Your task to perform on an android device: change text size in settings app Image 0: 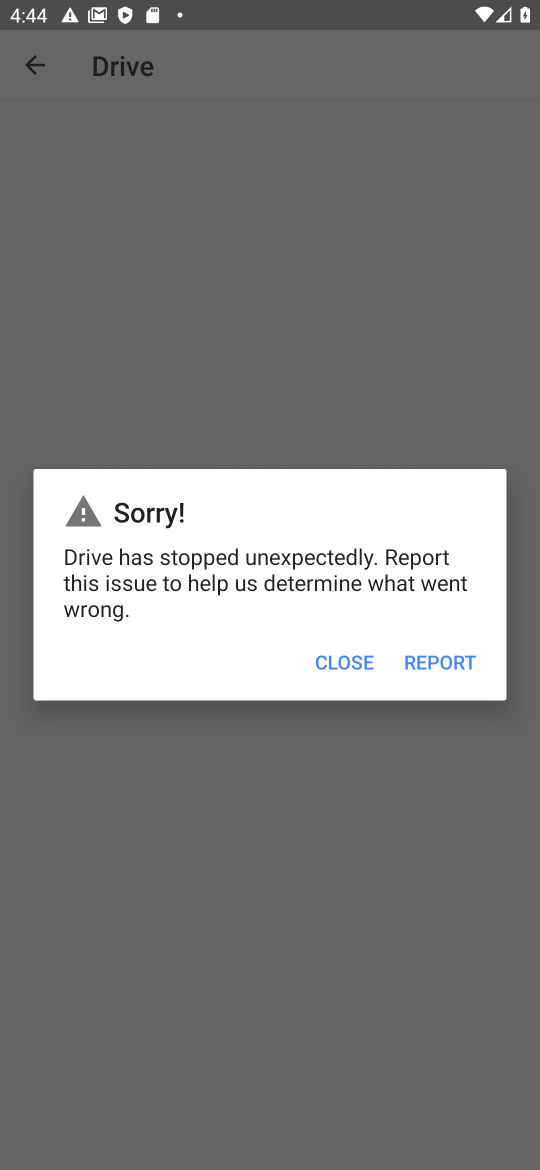
Step 0: press home button
Your task to perform on an android device: change text size in settings app Image 1: 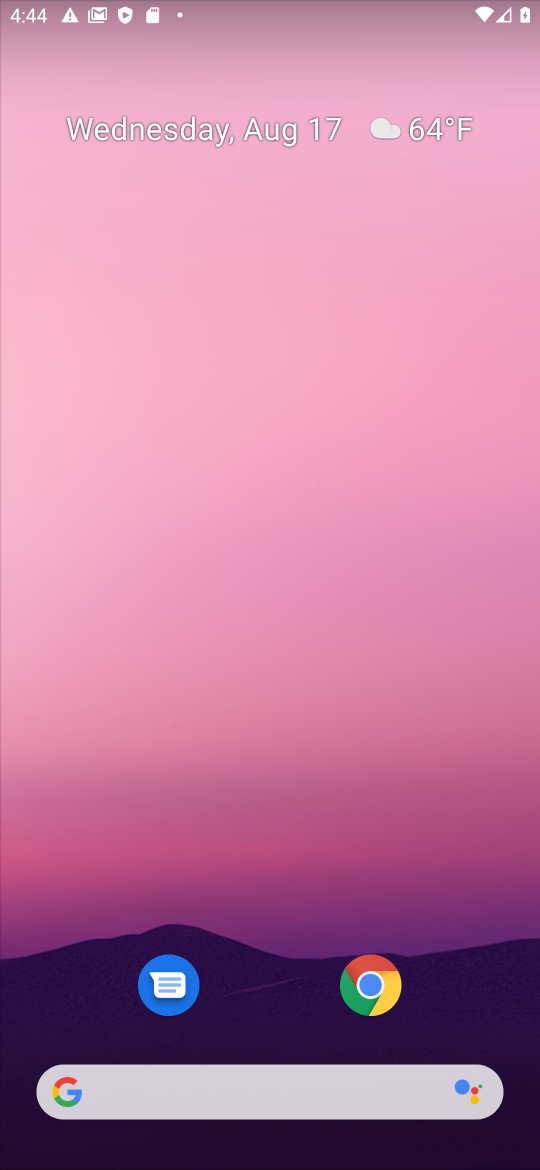
Step 1: drag from (249, 1086) to (223, 161)
Your task to perform on an android device: change text size in settings app Image 2: 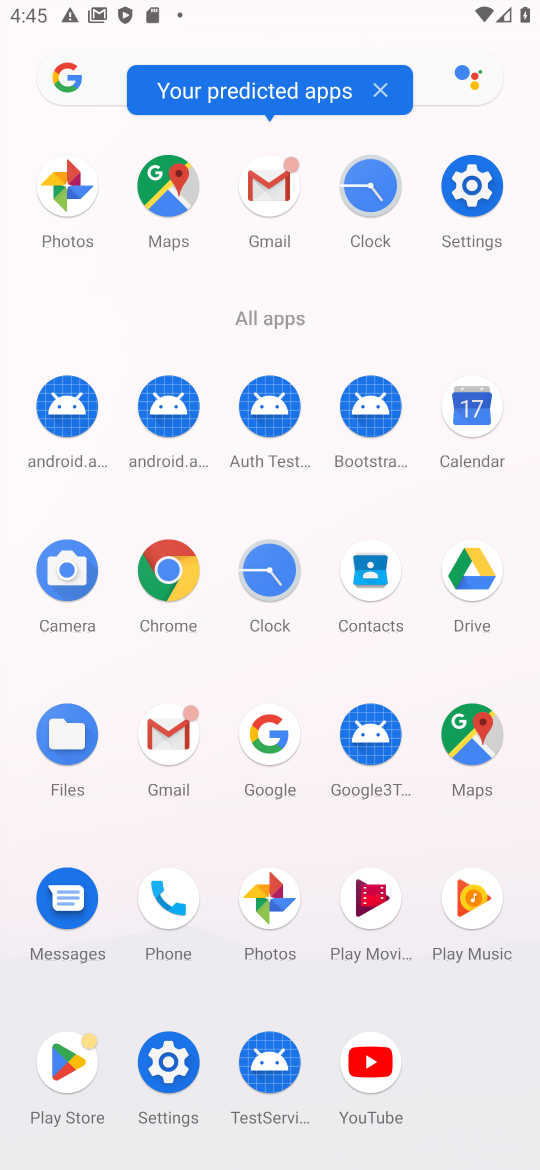
Step 2: click (171, 1061)
Your task to perform on an android device: change text size in settings app Image 3: 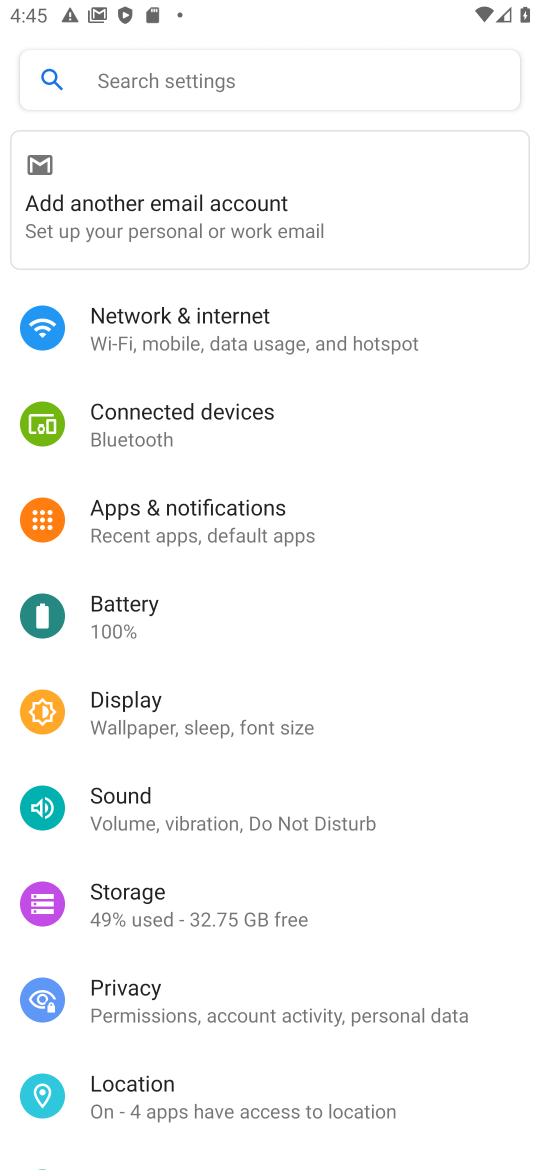
Step 3: drag from (189, 968) to (330, 750)
Your task to perform on an android device: change text size in settings app Image 4: 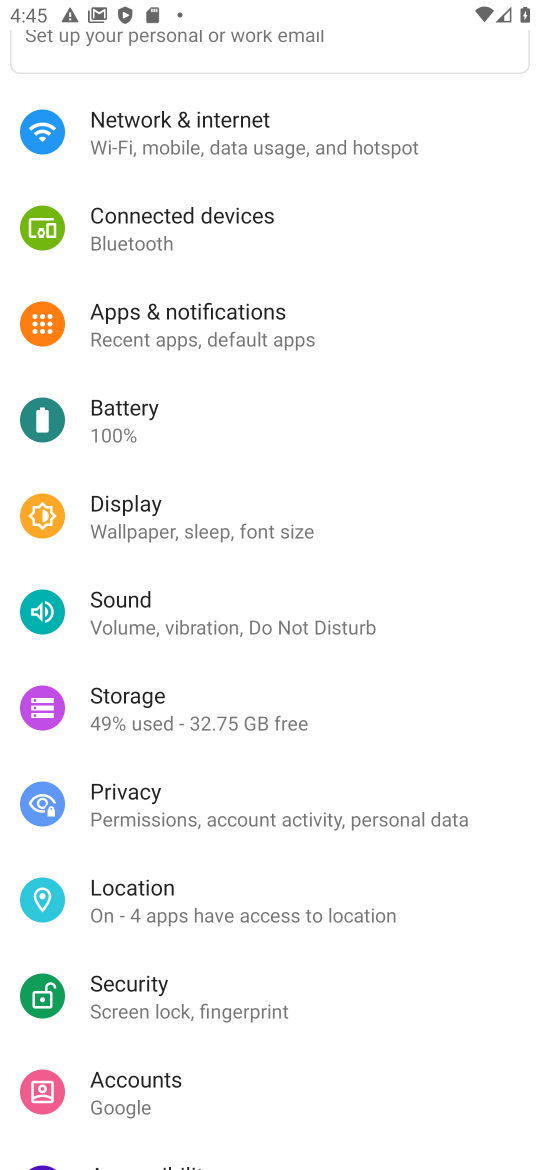
Step 4: drag from (197, 1037) to (333, 801)
Your task to perform on an android device: change text size in settings app Image 5: 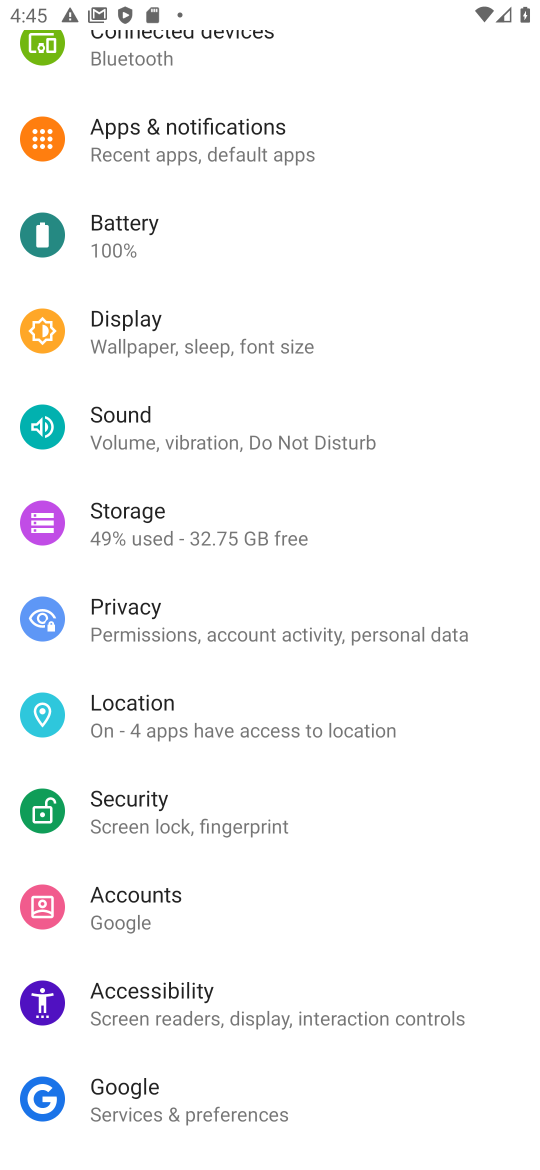
Step 5: click (230, 1011)
Your task to perform on an android device: change text size in settings app Image 6: 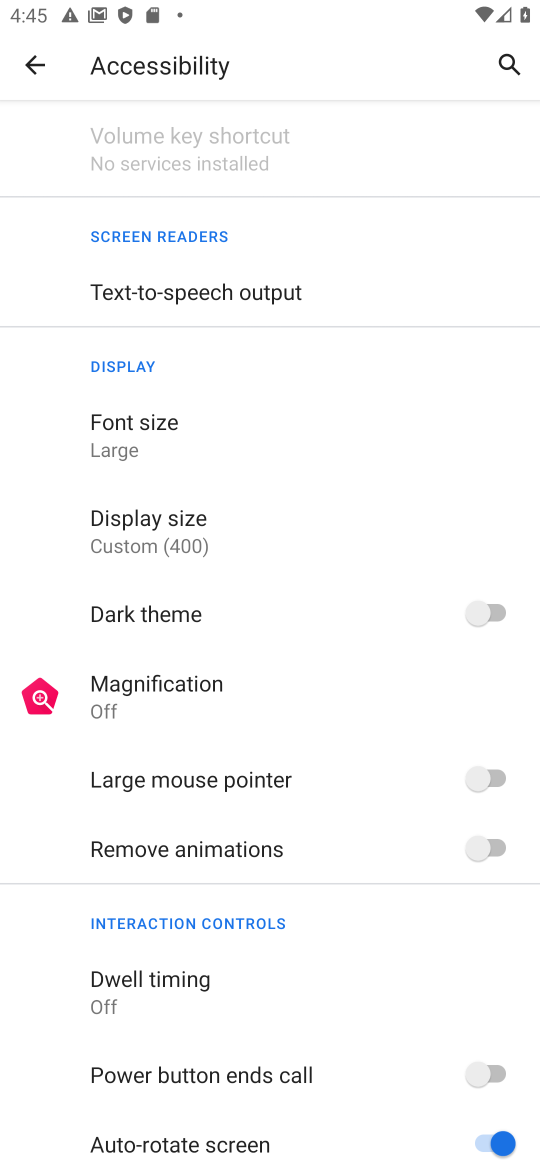
Step 6: click (180, 439)
Your task to perform on an android device: change text size in settings app Image 7: 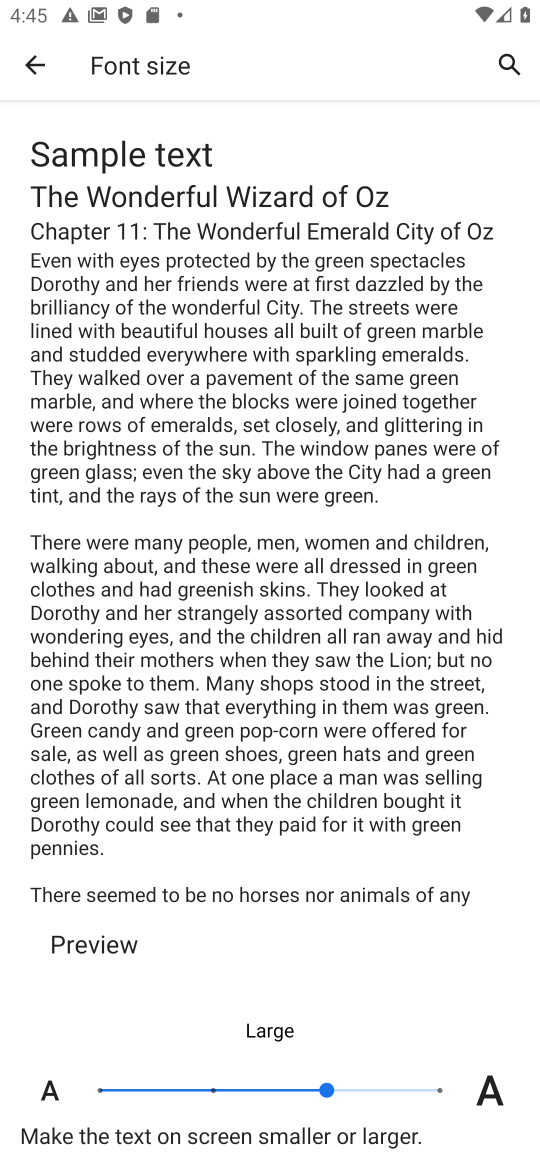
Step 7: click (209, 1092)
Your task to perform on an android device: change text size in settings app Image 8: 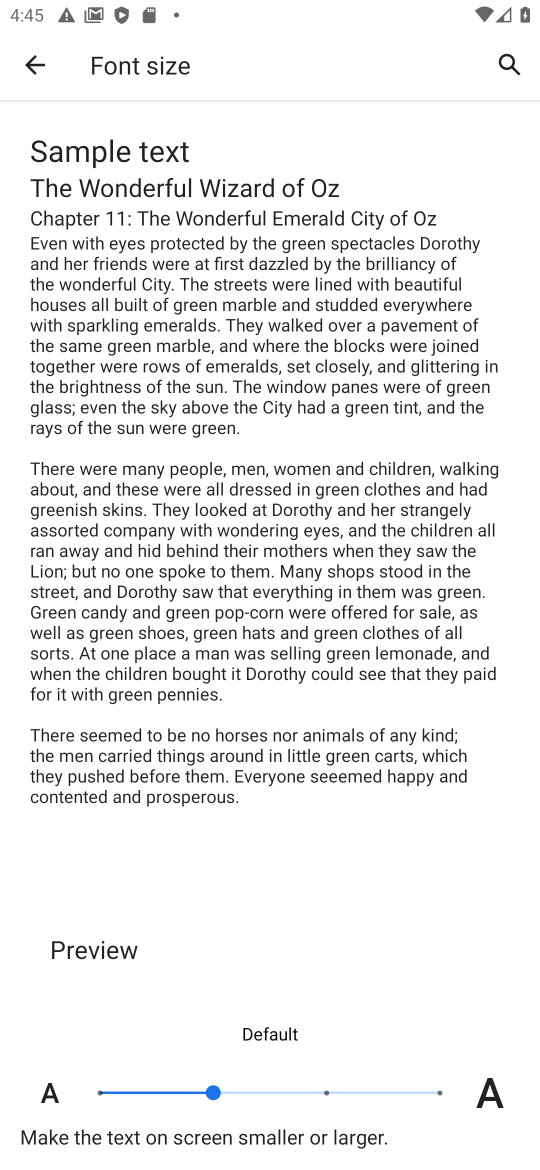
Step 8: task complete